Your task to perform on an android device: toggle data saver in the chrome app Image 0: 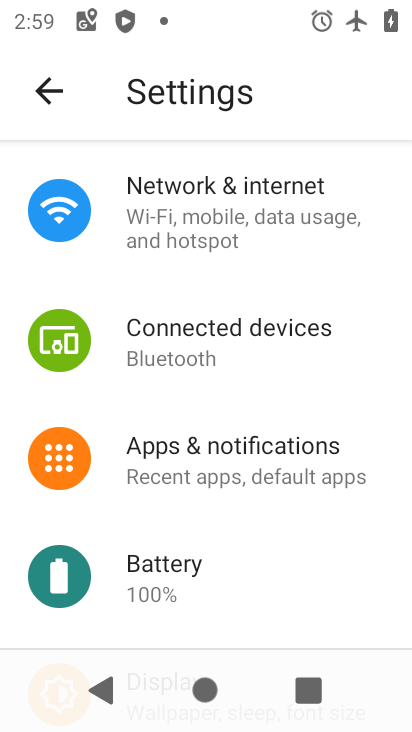
Step 0: press home button
Your task to perform on an android device: toggle data saver in the chrome app Image 1: 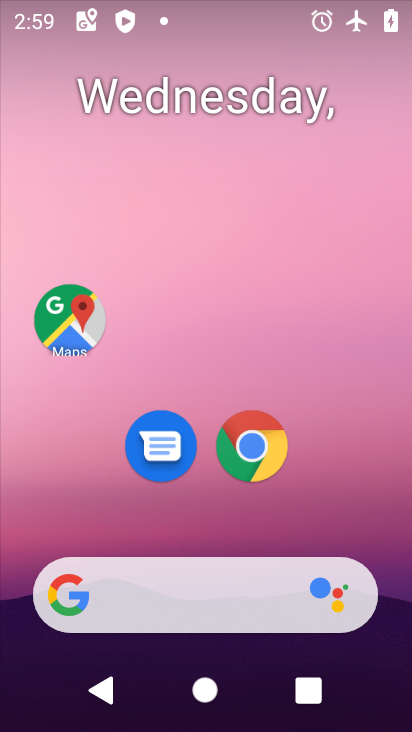
Step 1: click (242, 473)
Your task to perform on an android device: toggle data saver in the chrome app Image 2: 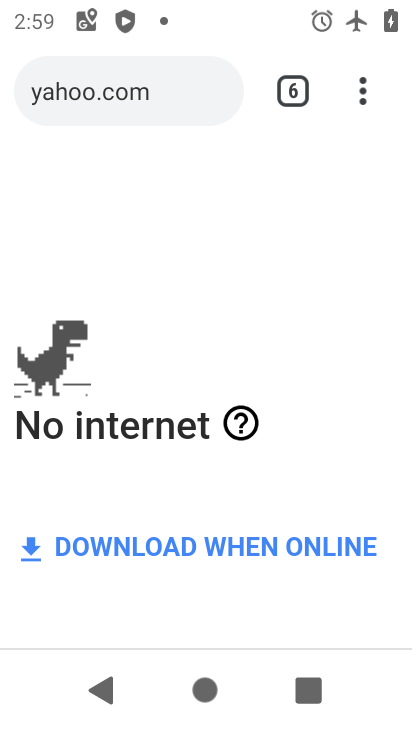
Step 2: drag from (357, 84) to (130, 482)
Your task to perform on an android device: toggle data saver in the chrome app Image 3: 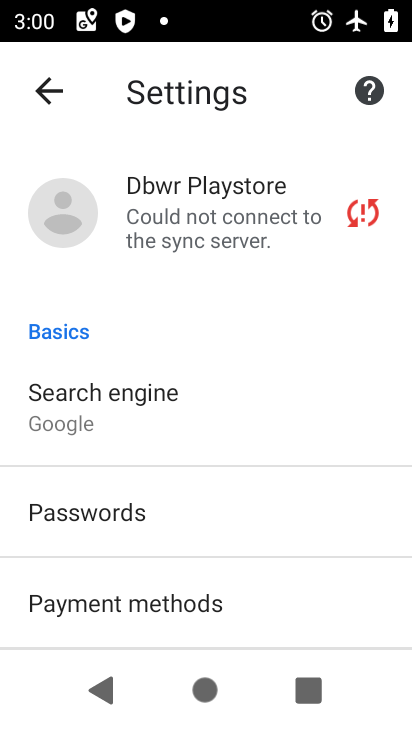
Step 3: click (237, 290)
Your task to perform on an android device: toggle data saver in the chrome app Image 4: 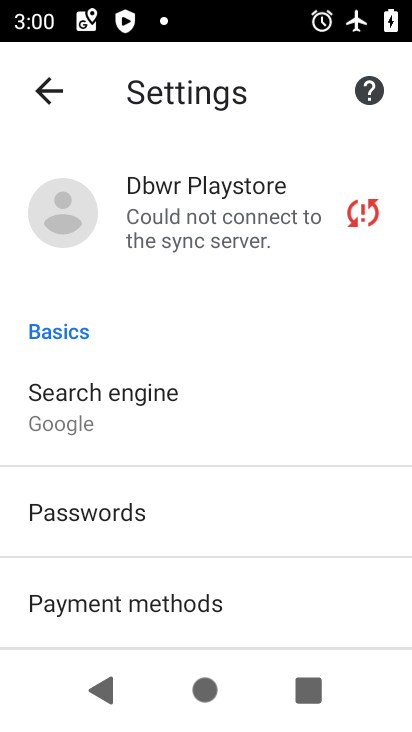
Step 4: drag from (223, 597) to (250, 327)
Your task to perform on an android device: toggle data saver in the chrome app Image 5: 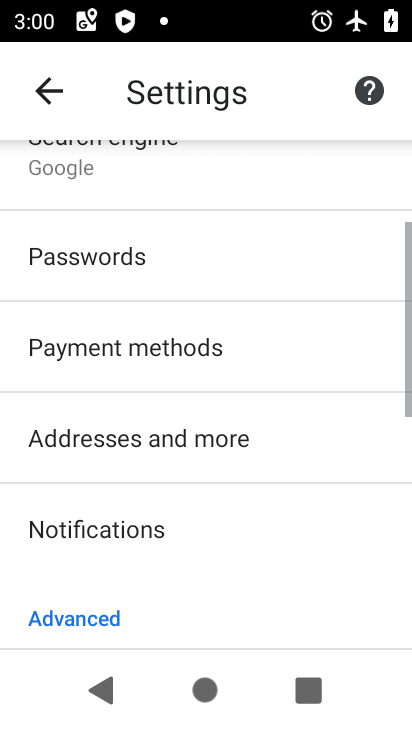
Step 5: drag from (229, 562) to (265, 308)
Your task to perform on an android device: toggle data saver in the chrome app Image 6: 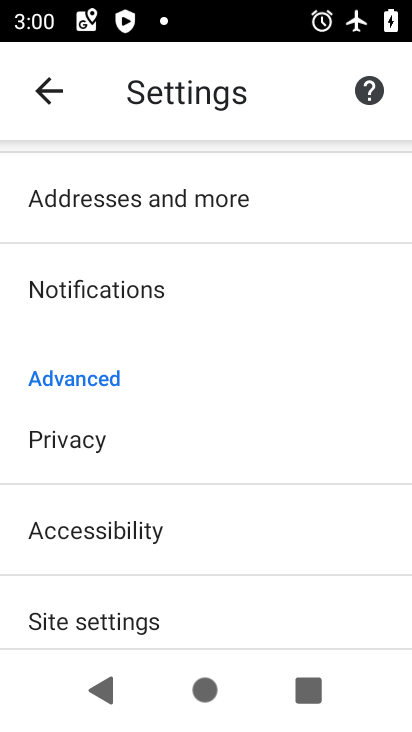
Step 6: drag from (224, 587) to (251, 298)
Your task to perform on an android device: toggle data saver in the chrome app Image 7: 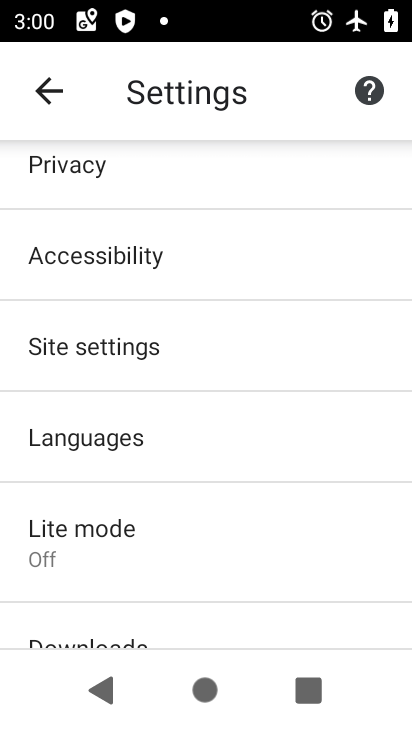
Step 7: click (154, 533)
Your task to perform on an android device: toggle data saver in the chrome app Image 8: 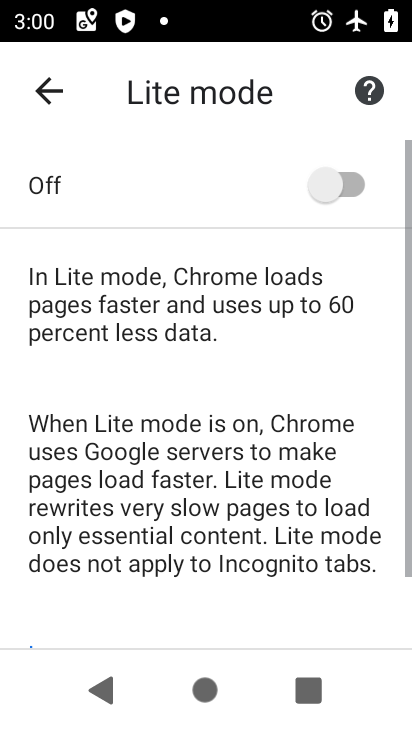
Step 8: click (351, 193)
Your task to perform on an android device: toggle data saver in the chrome app Image 9: 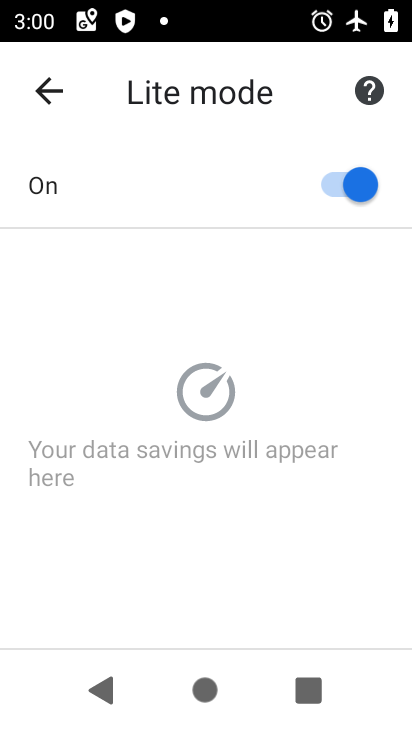
Step 9: task complete